Your task to perform on an android device: toggle pop-ups in chrome Image 0: 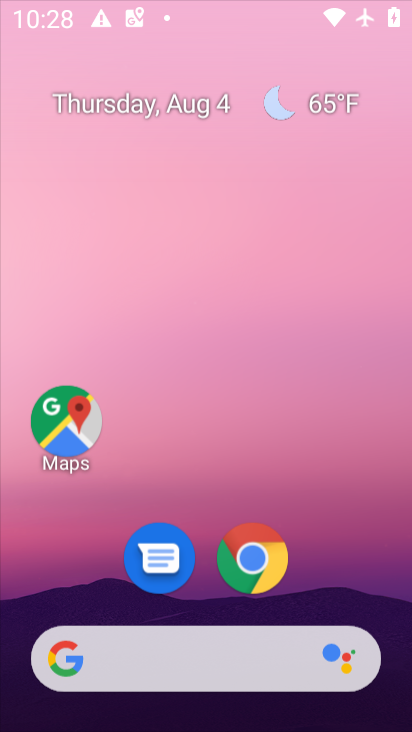
Step 0: drag from (324, 344) to (309, 151)
Your task to perform on an android device: toggle pop-ups in chrome Image 1: 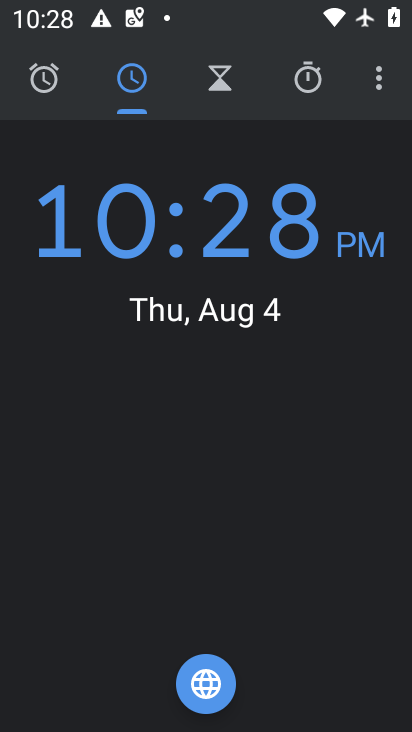
Step 1: press home button
Your task to perform on an android device: toggle pop-ups in chrome Image 2: 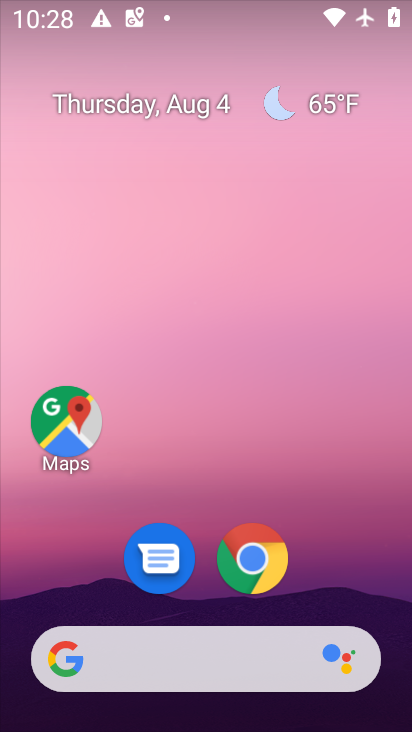
Step 2: drag from (326, 553) to (283, 182)
Your task to perform on an android device: toggle pop-ups in chrome Image 3: 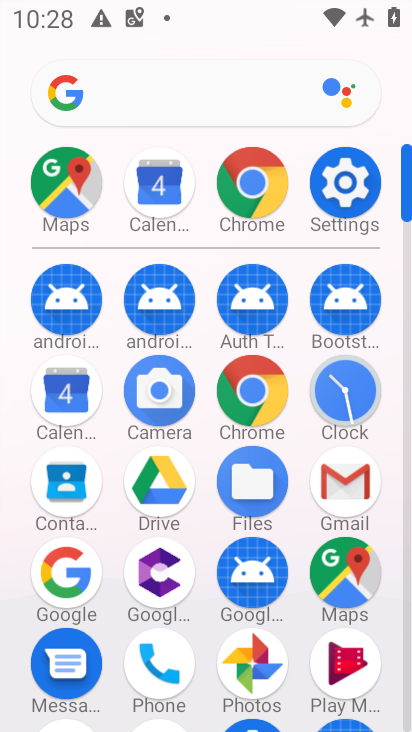
Step 3: click (258, 396)
Your task to perform on an android device: toggle pop-ups in chrome Image 4: 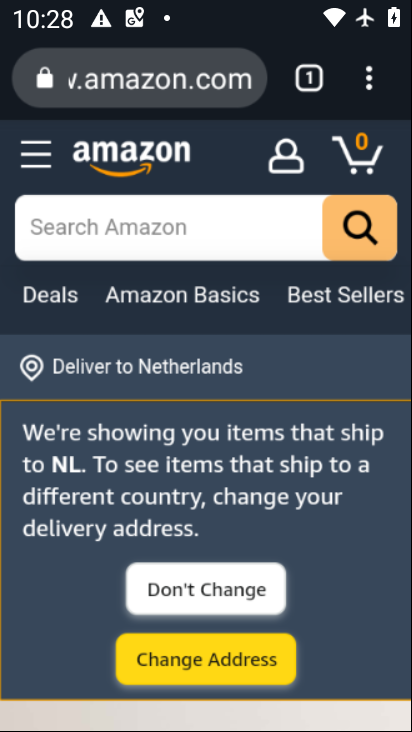
Step 4: drag from (374, 69) to (222, 613)
Your task to perform on an android device: toggle pop-ups in chrome Image 5: 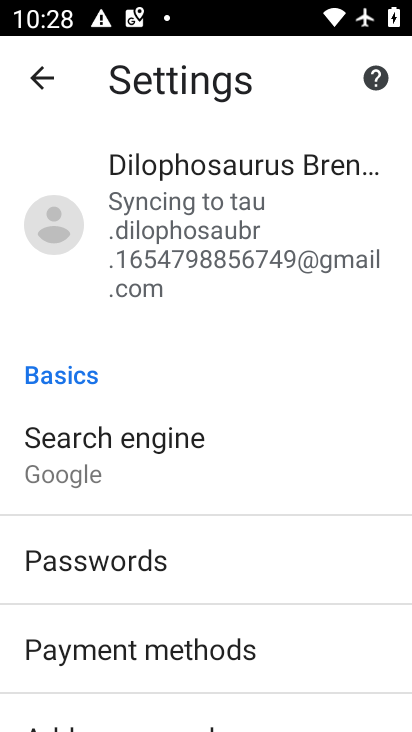
Step 5: drag from (324, 613) to (326, 136)
Your task to perform on an android device: toggle pop-ups in chrome Image 6: 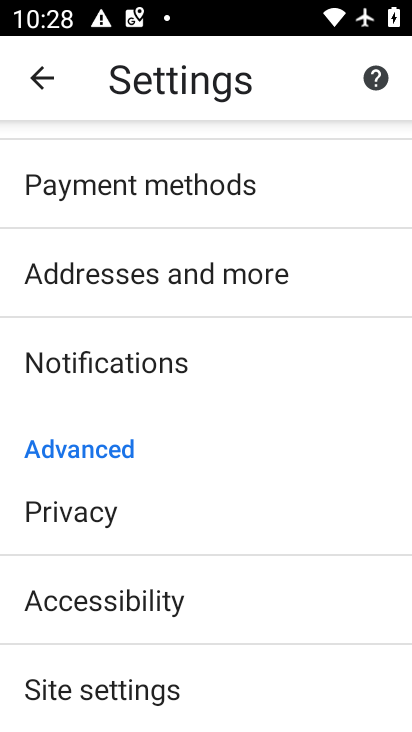
Step 6: drag from (274, 571) to (320, 210)
Your task to perform on an android device: toggle pop-ups in chrome Image 7: 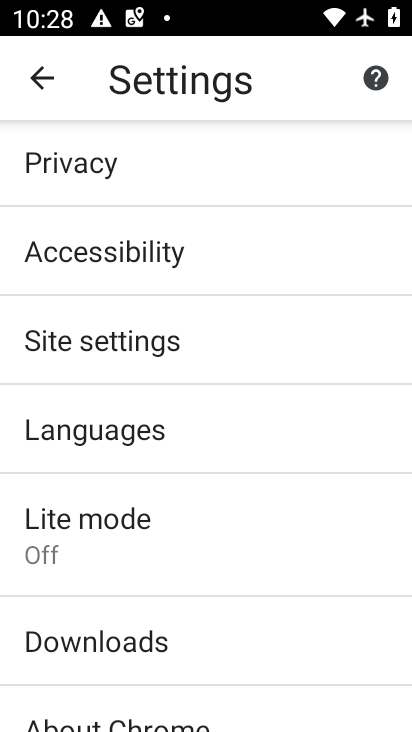
Step 7: click (161, 340)
Your task to perform on an android device: toggle pop-ups in chrome Image 8: 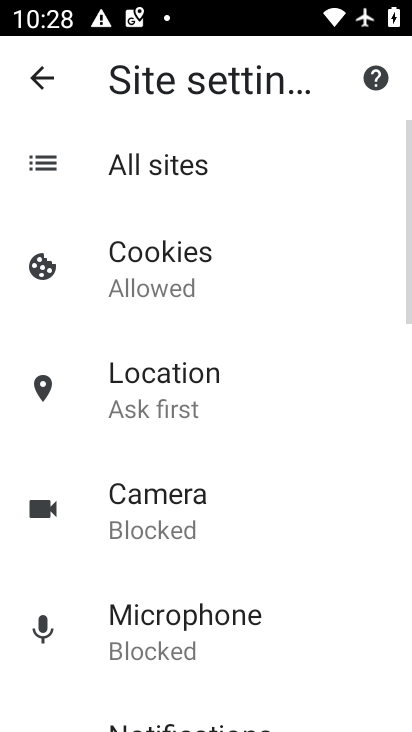
Step 8: drag from (294, 607) to (294, 194)
Your task to perform on an android device: toggle pop-ups in chrome Image 9: 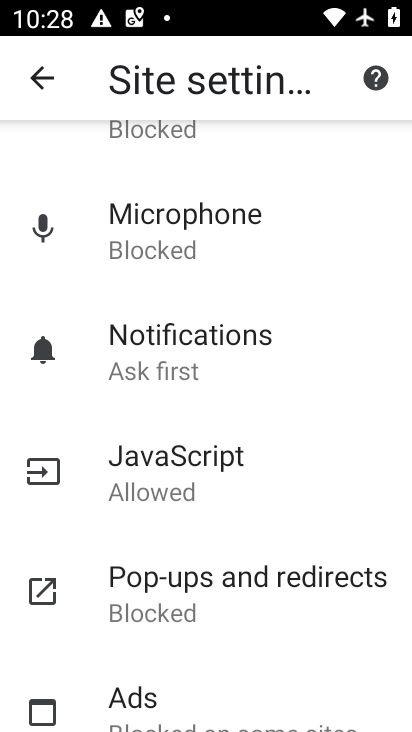
Step 9: click (203, 570)
Your task to perform on an android device: toggle pop-ups in chrome Image 10: 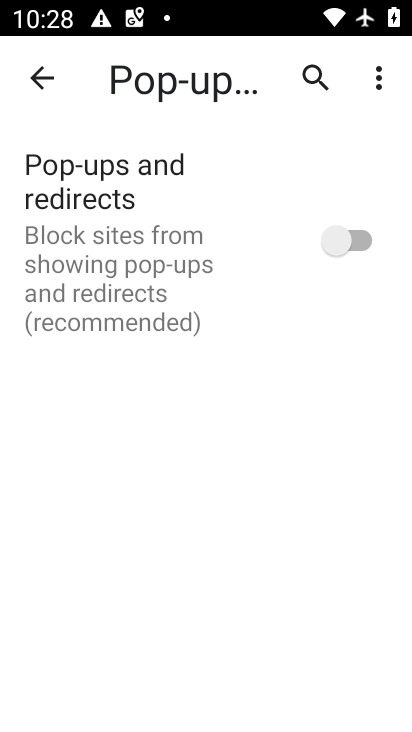
Step 10: click (324, 248)
Your task to perform on an android device: toggle pop-ups in chrome Image 11: 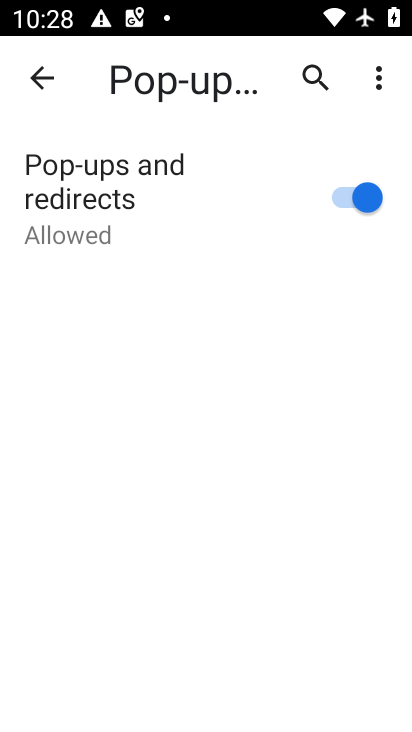
Step 11: task complete